Your task to perform on an android device: Open CNN.com Image 0: 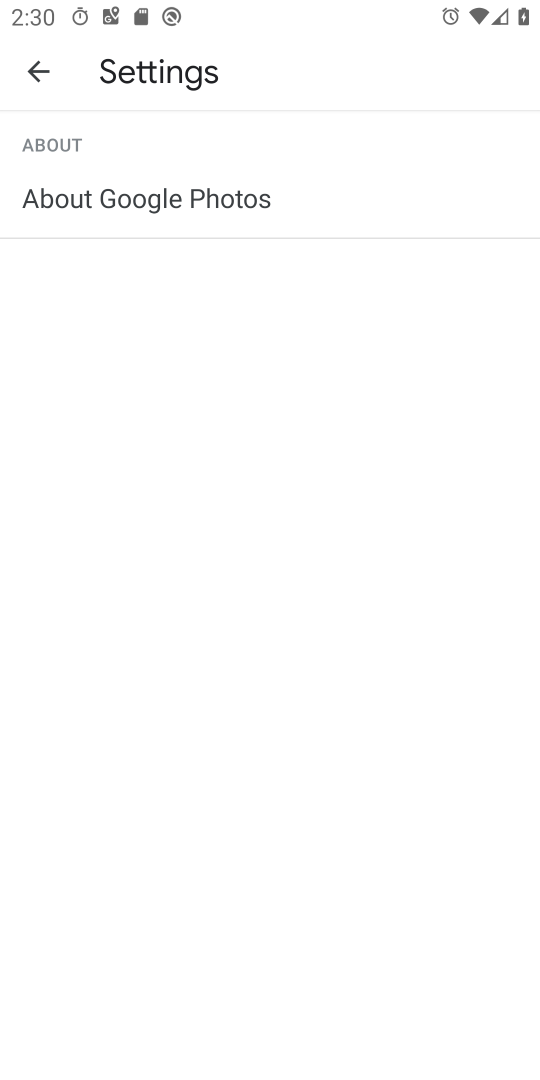
Step 0: press home button
Your task to perform on an android device: Open CNN.com Image 1: 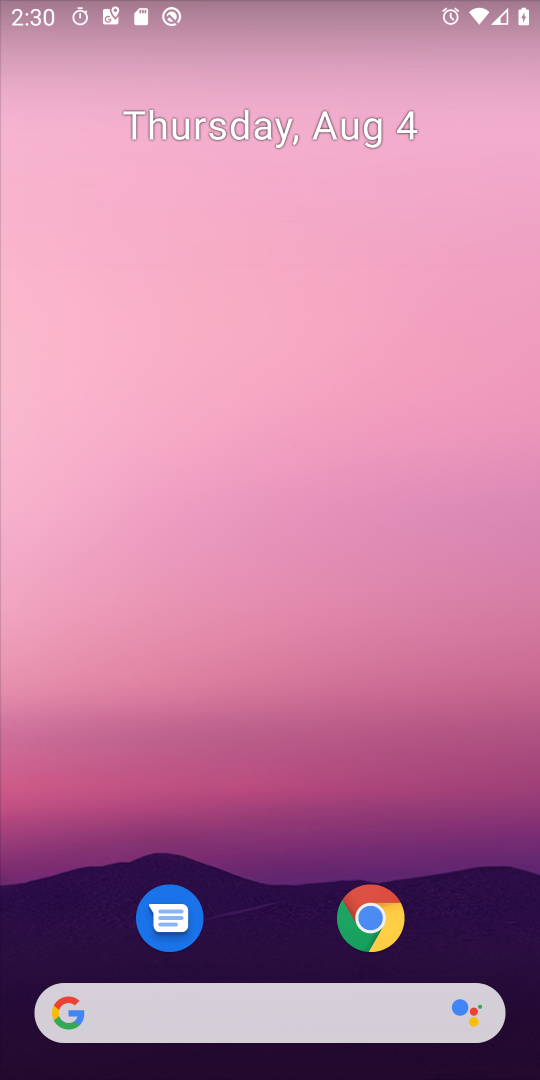
Step 1: click (346, 907)
Your task to perform on an android device: Open CNN.com Image 2: 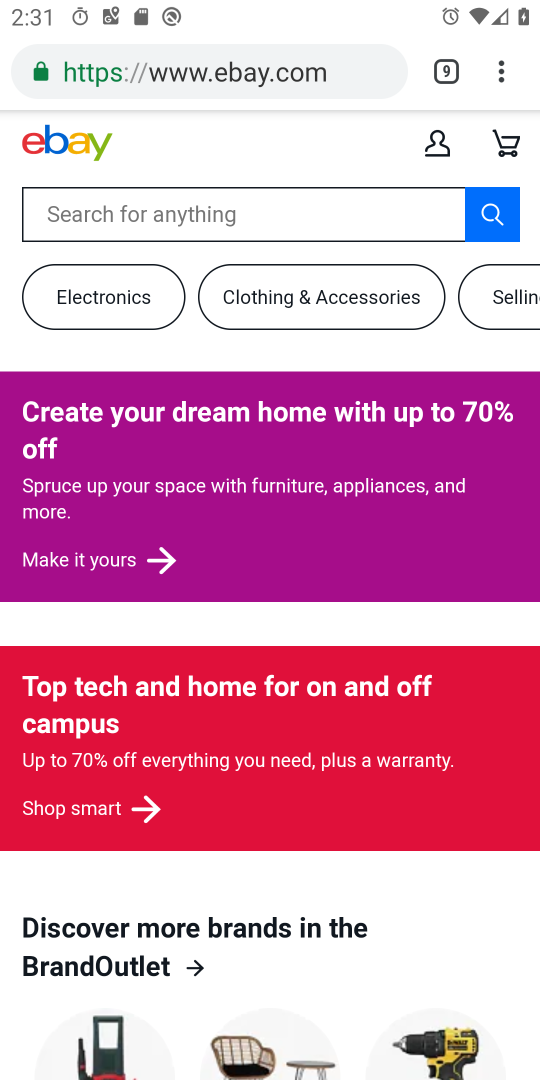
Step 2: click (440, 70)
Your task to perform on an android device: Open CNN.com Image 3: 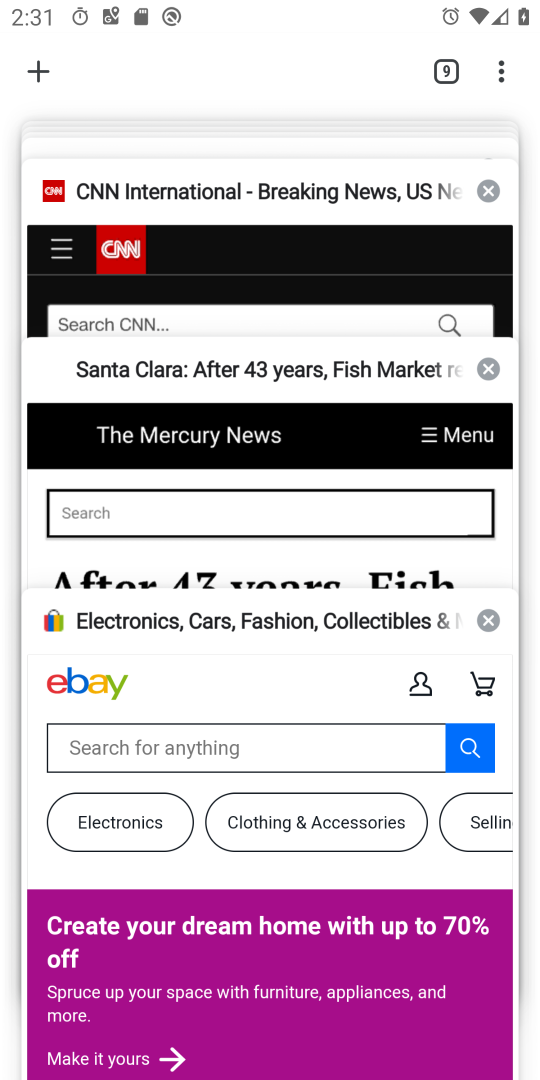
Step 3: click (205, 191)
Your task to perform on an android device: Open CNN.com Image 4: 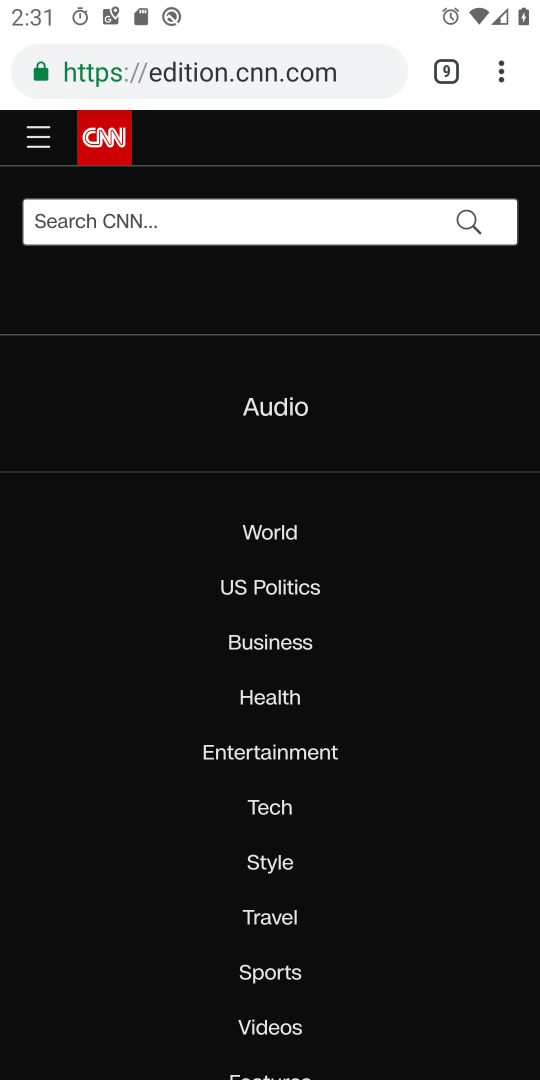
Step 4: task complete